Your task to perform on an android device: open a bookmark in the chrome app Image 0: 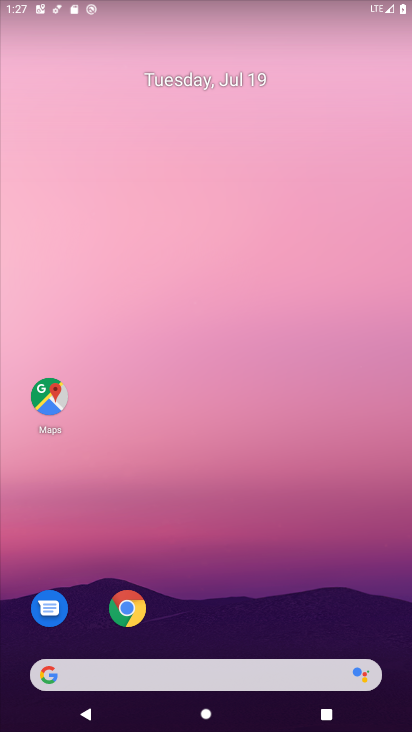
Step 0: drag from (230, 619) to (240, 122)
Your task to perform on an android device: open a bookmark in the chrome app Image 1: 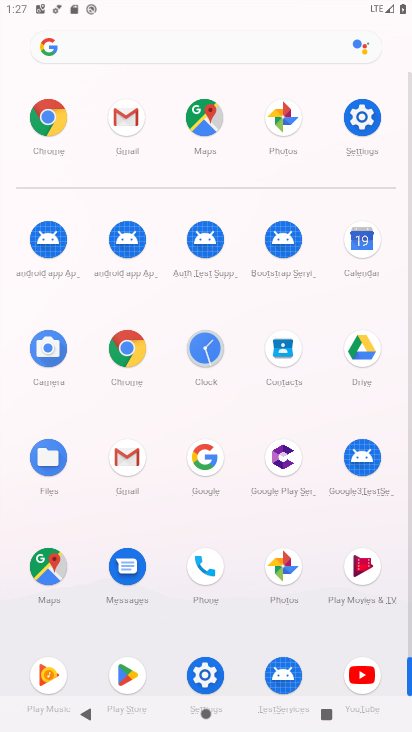
Step 1: click (124, 350)
Your task to perform on an android device: open a bookmark in the chrome app Image 2: 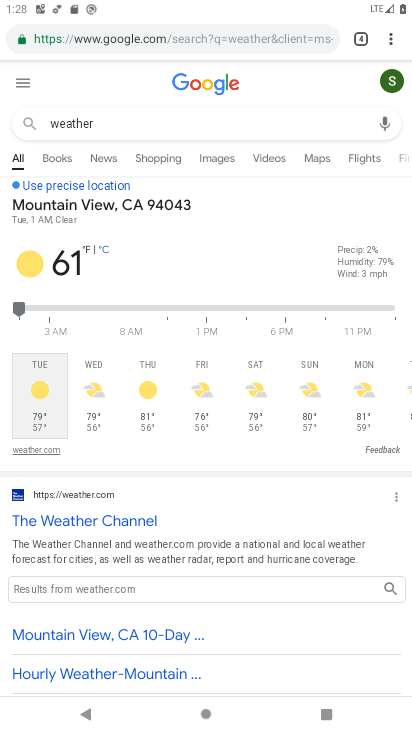
Step 2: click (396, 42)
Your task to perform on an android device: open a bookmark in the chrome app Image 3: 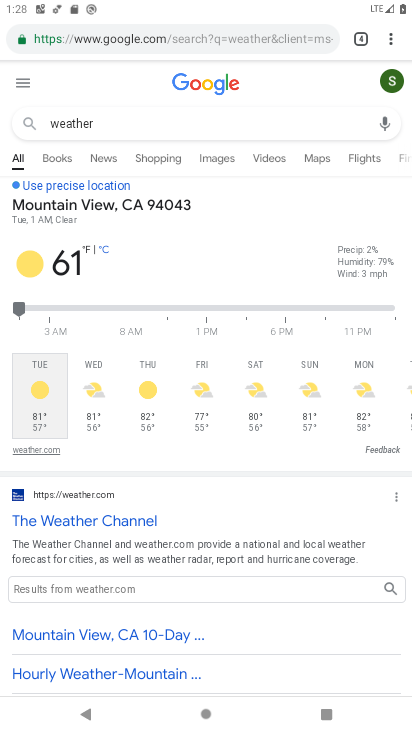
Step 3: click (390, 40)
Your task to perform on an android device: open a bookmark in the chrome app Image 4: 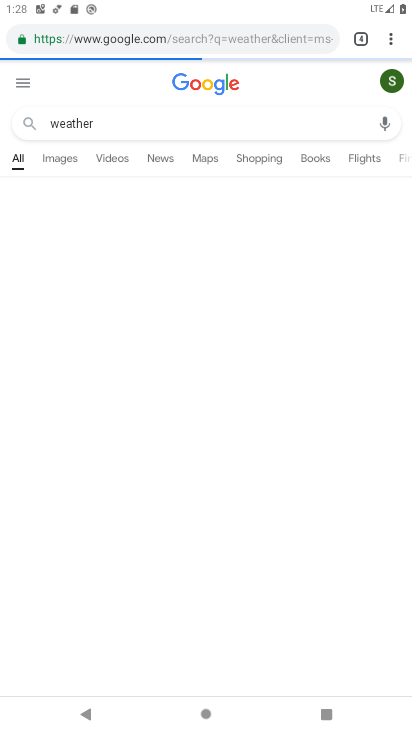
Step 4: click (390, 40)
Your task to perform on an android device: open a bookmark in the chrome app Image 5: 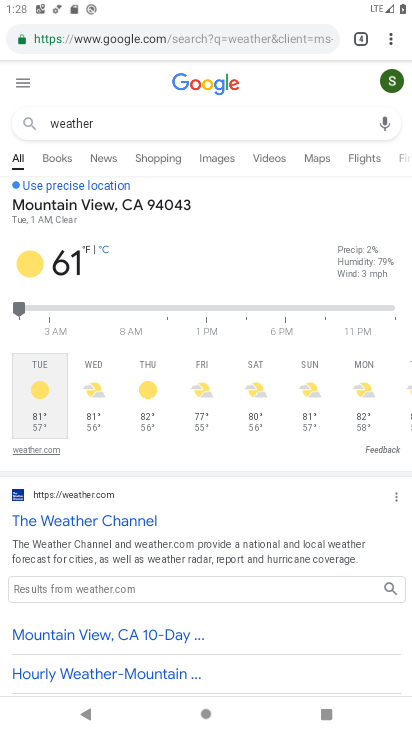
Step 5: click (396, 44)
Your task to perform on an android device: open a bookmark in the chrome app Image 6: 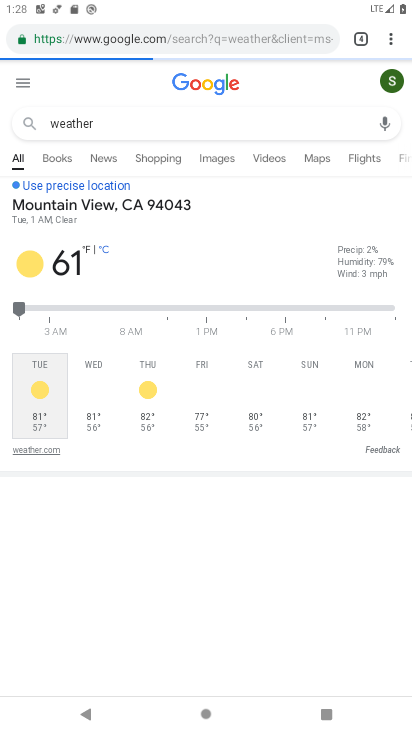
Step 6: click (395, 44)
Your task to perform on an android device: open a bookmark in the chrome app Image 7: 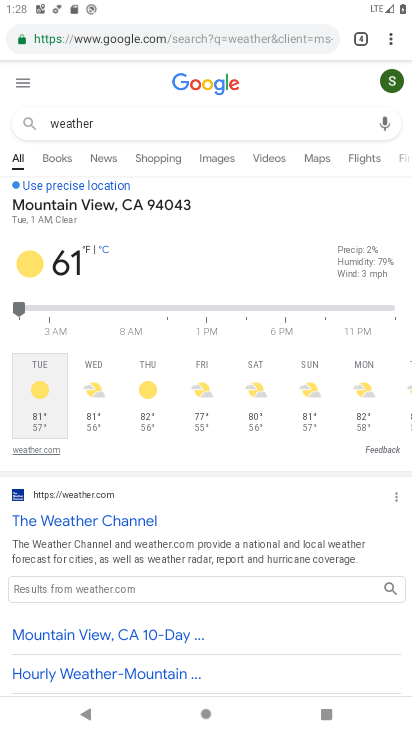
Step 7: click (395, 44)
Your task to perform on an android device: open a bookmark in the chrome app Image 8: 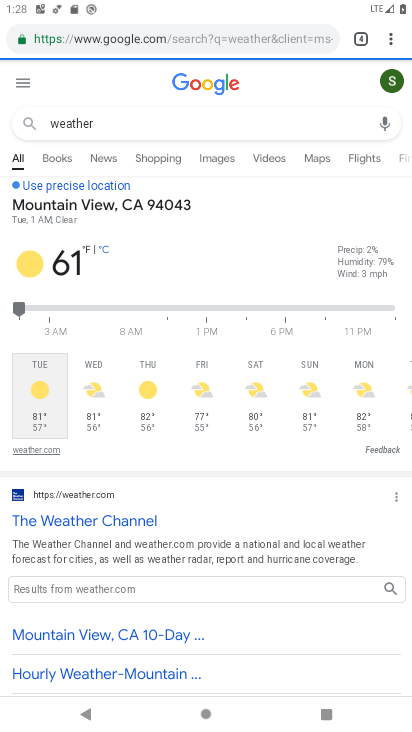
Step 8: click (391, 38)
Your task to perform on an android device: open a bookmark in the chrome app Image 9: 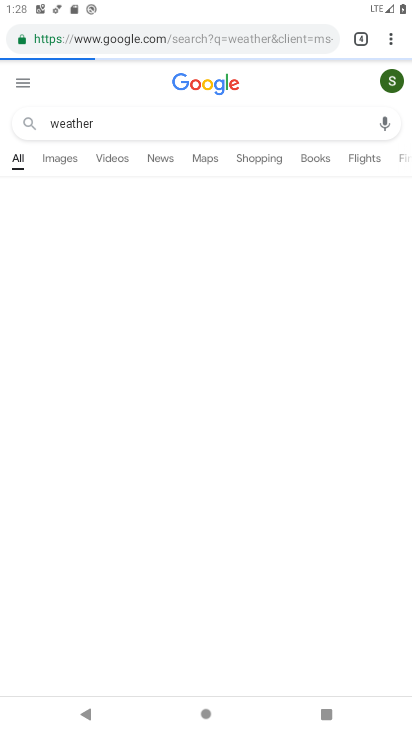
Step 9: click (391, 38)
Your task to perform on an android device: open a bookmark in the chrome app Image 10: 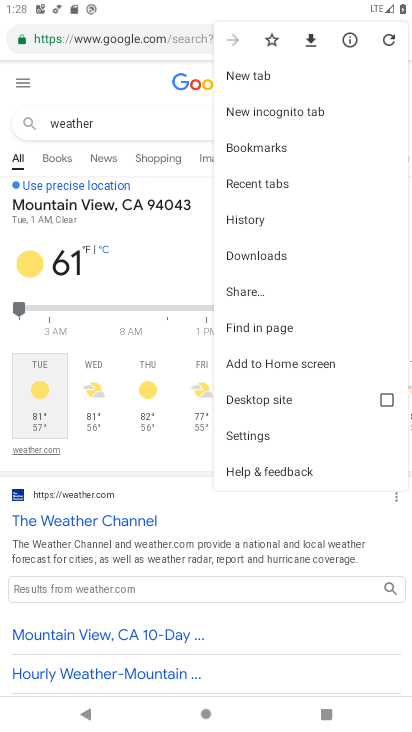
Step 10: click (300, 154)
Your task to perform on an android device: open a bookmark in the chrome app Image 11: 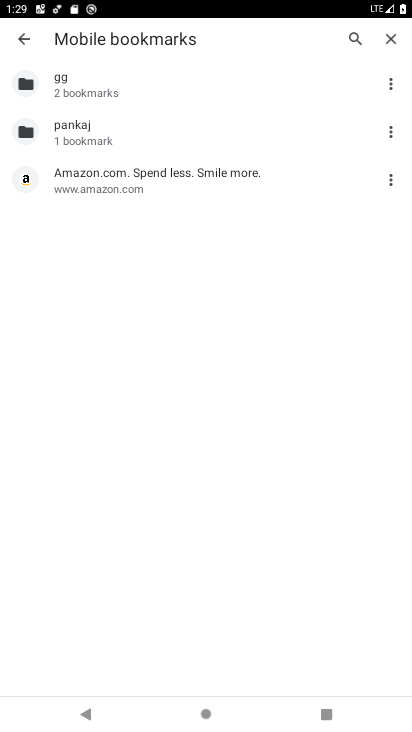
Step 11: click (185, 185)
Your task to perform on an android device: open a bookmark in the chrome app Image 12: 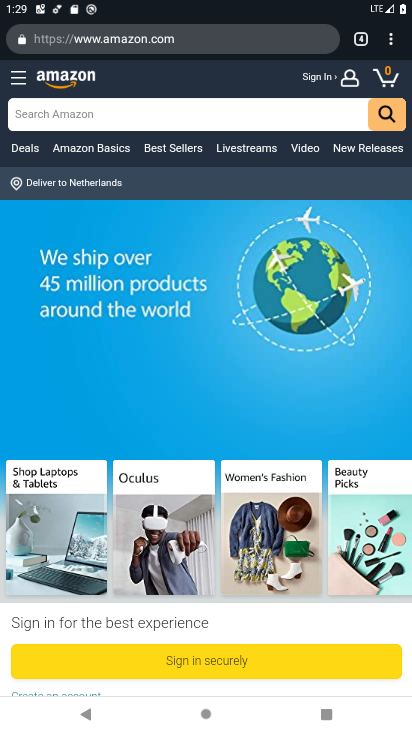
Step 12: task complete